Your task to perform on an android device: Search for hotels in Buenos aires Image 0: 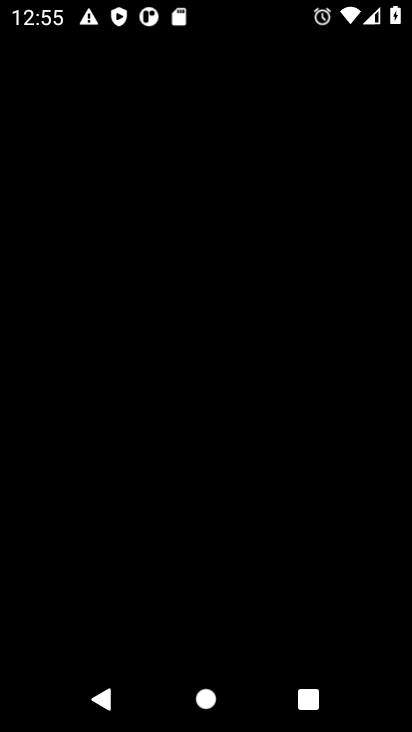
Step 0: press home button
Your task to perform on an android device: Search for hotels in Buenos aires Image 1: 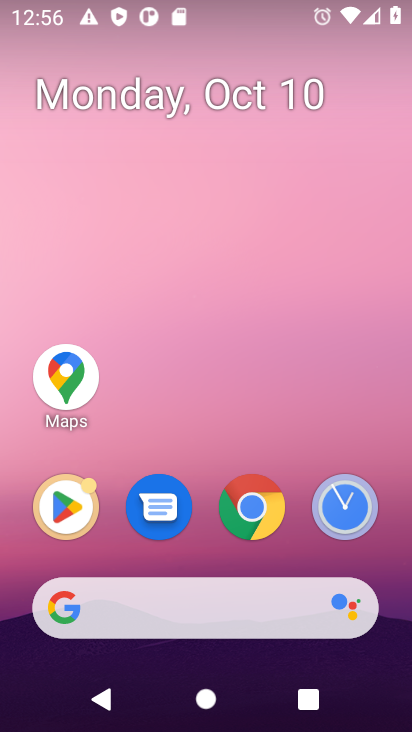
Step 1: click (260, 618)
Your task to perform on an android device: Search for hotels in Buenos aires Image 2: 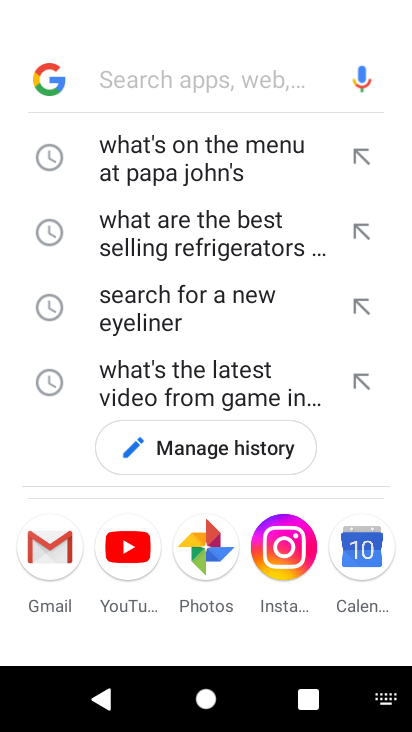
Step 2: type "hotels in Buenos aires"
Your task to perform on an android device: Search for hotels in Buenos aires Image 3: 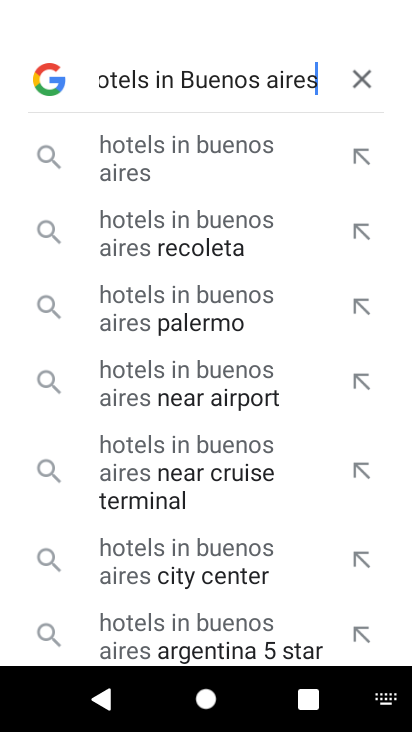
Step 3: press enter
Your task to perform on an android device: Search for hotels in Buenos aires Image 4: 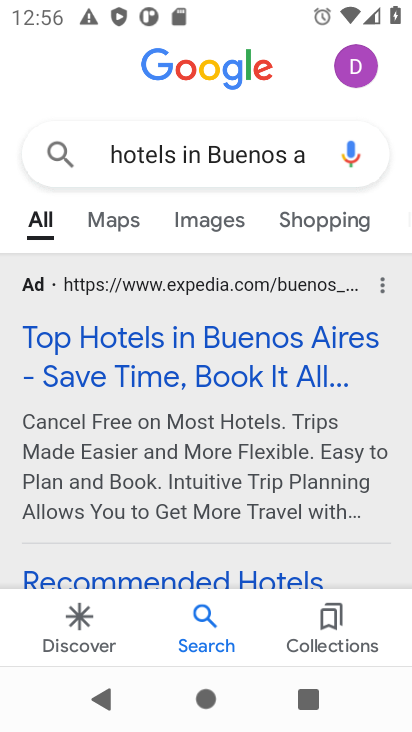
Step 4: click (222, 348)
Your task to perform on an android device: Search for hotels in Buenos aires Image 5: 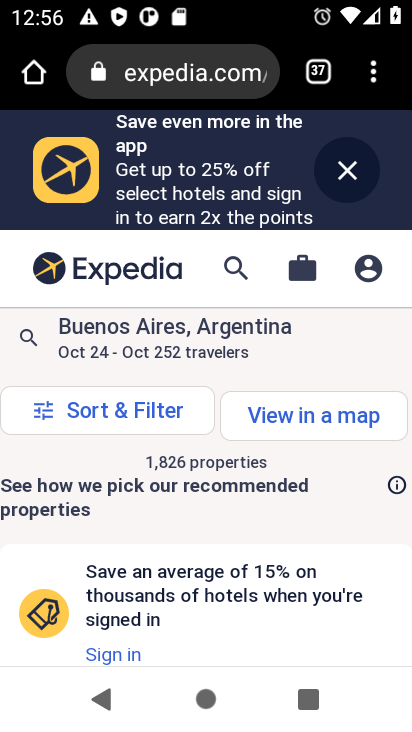
Step 5: task complete